Your task to perform on an android device: empty trash in the gmail app Image 0: 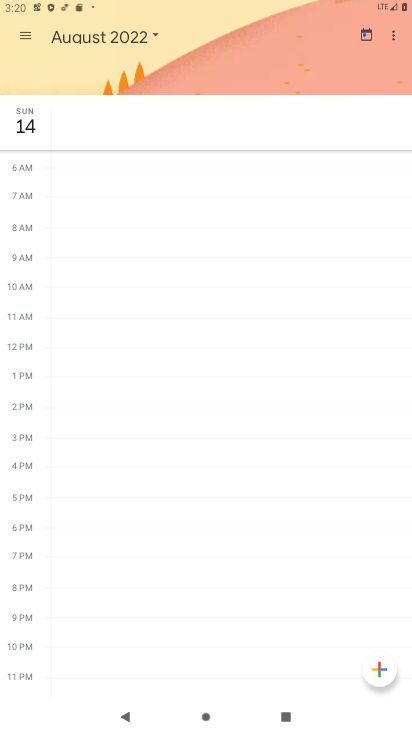
Step 0: press home button
Your task to perform on an android device: empty trash in the gmail app Image 1: 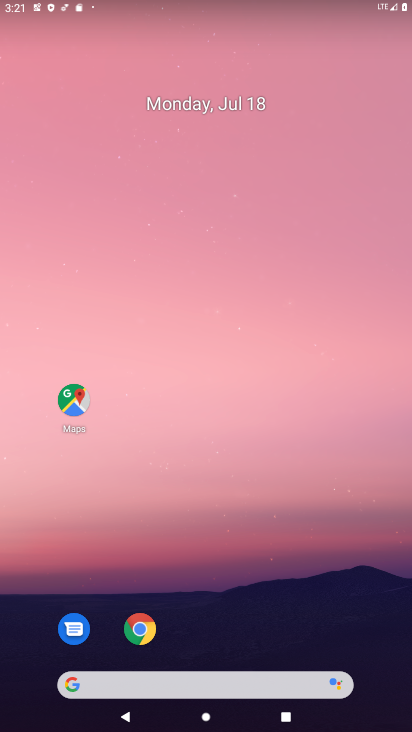
Step 1: drag from (199, 612) to (216, 119)
Your task to perform on an android device: empty trash in the gmail app Image 2: 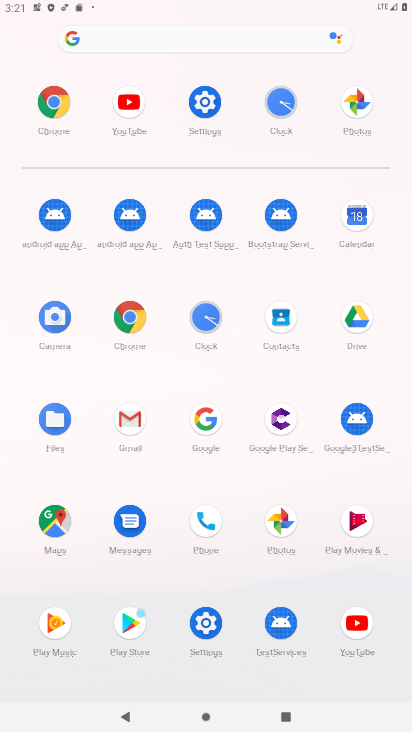
Step 2: click (137, 423)
Your task to perform on an android device: empty trash in the gmail app Image 3: 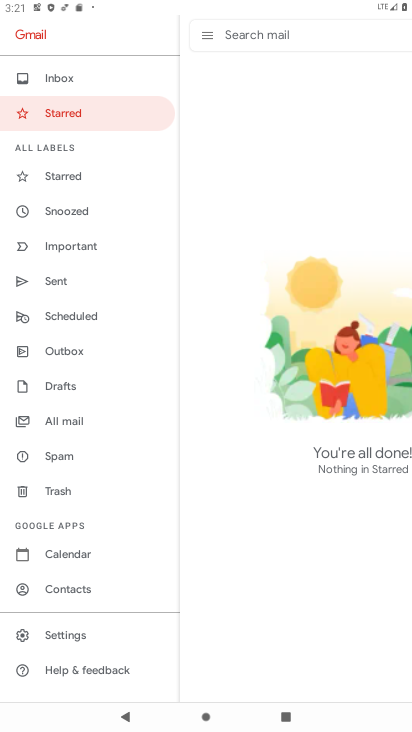
Step 3: click (51, 491)
Your task to perform on an android device: empty trash in the gmail app Image 4: 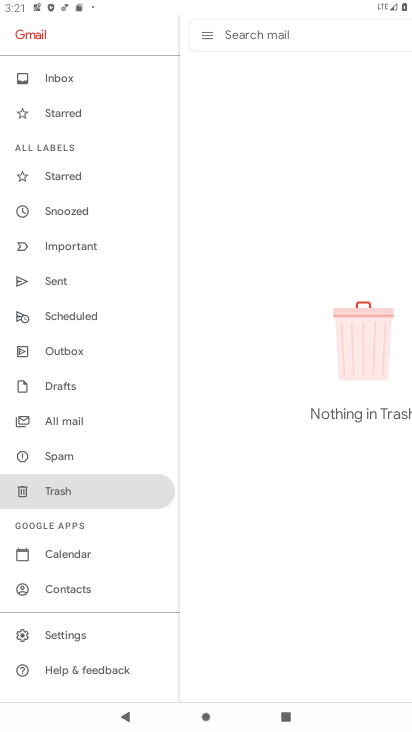
Step 4: task complete